Your task to perform on an android device: What's a good restaurant in Philadelphia? Image 0: 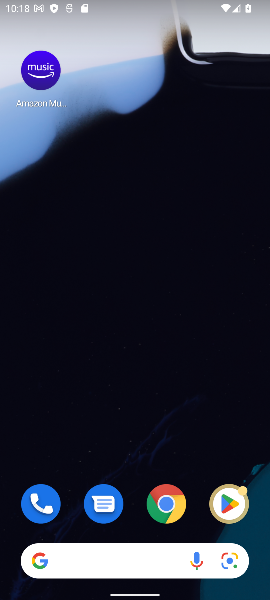
Step 0: click (166, 504)
Your task to perform on an android device: What's a good restaurant in Philadelphia? Image 1: 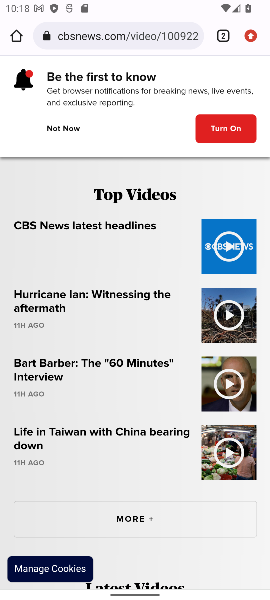
Step 1: click (119, 20)
Your task to perform on an android device: What's a good restaurant in Philadelphia? Image 2: 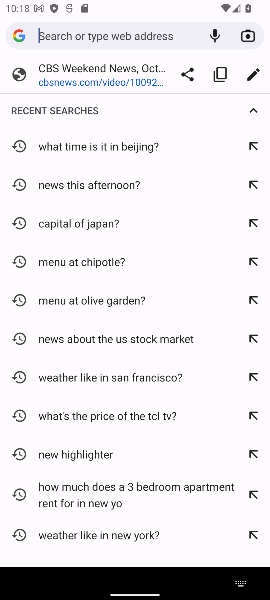
Step 2: type "good restaurant in Philadelphia?"
Your task to perform on an android device: What's a good restaurant in Philadelphia? Image 3: 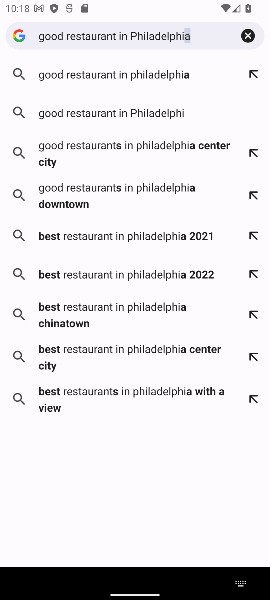
Step 3: click (73, 68)
Your task to perform on an android device: What's a good restaurant in Philadelphia? Image 4: 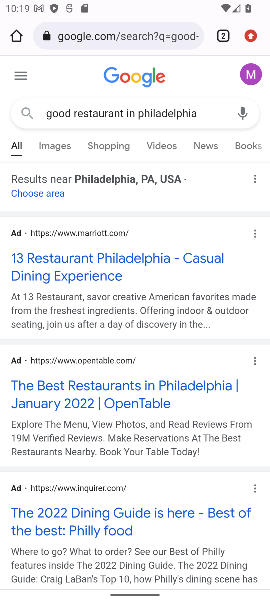
Step 4: click (66, 268)
Your task to perform on an android device: What's a good restaurant in Philadelphia? Image 5: 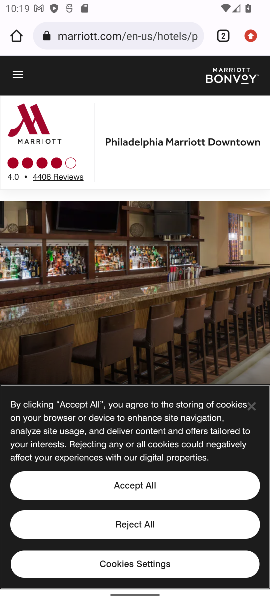
Step 5: click (114, 485)
Your task to perform on an android device: What's a good restaurant in Philadelphia? Image 6: 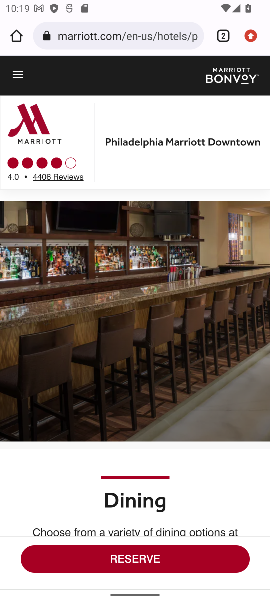
Step 6: task complete